Your task to perform on an android device: Open my contact list Image 0: 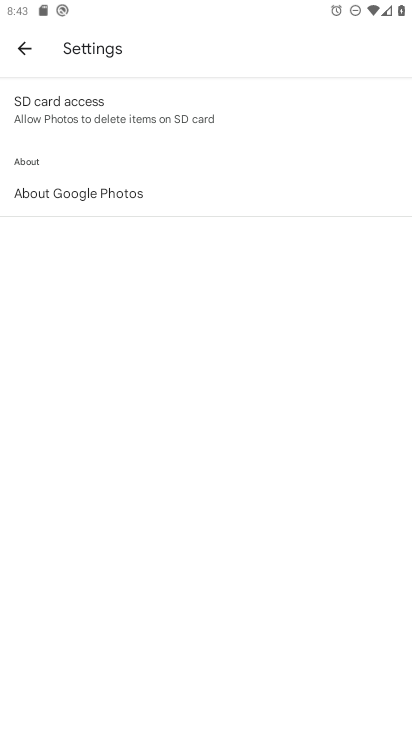
Step 0: press home button
Your task to perform on an android device: Open my contact list Image 1: 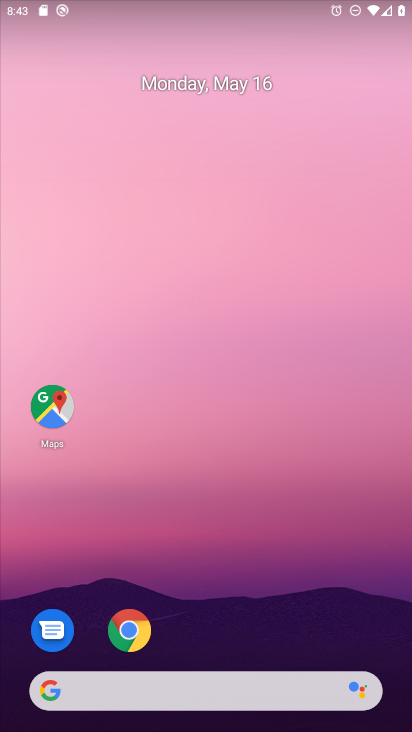
Step 1: drag from (189, 619) to (209, 64)
Your task to perform on an android device: Open my contact list Image 2: 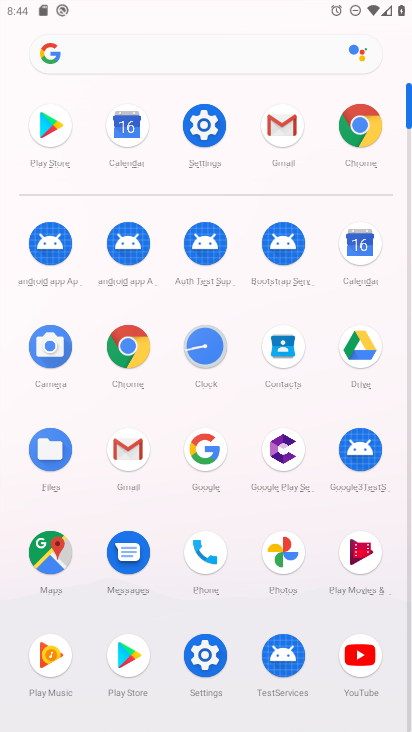
Step 2: click (290, 353)
Your task to perform on an android device: Open my contact list Image 3: 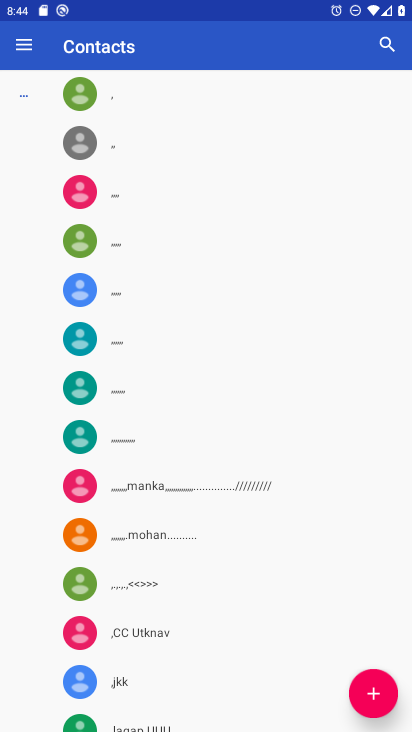
Step 3: task complete